Your task to perform on an android device: check data usage Image 0: 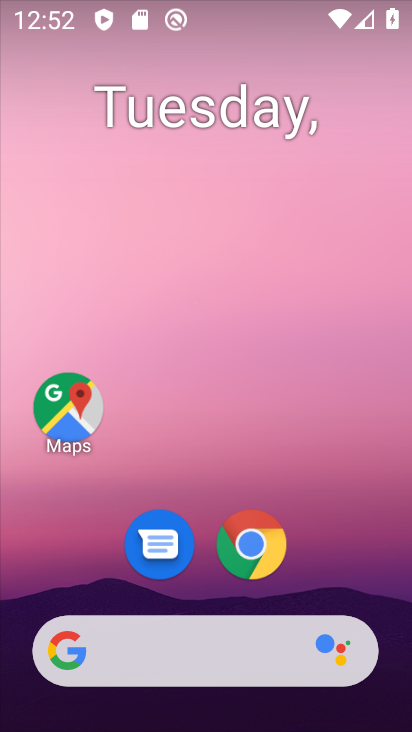
Step 0: drag from (383, 595) to (315, 169)
Your task to perform on an android device: check data usage Image 1: 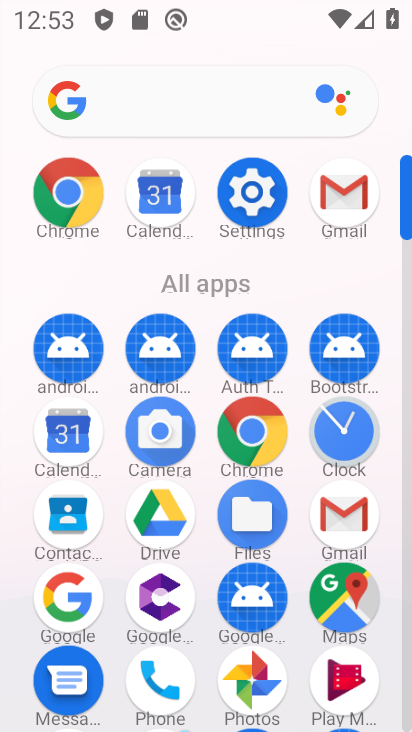
Step 1: click (408, 691)
Your task to perform on an android device: check data usage Image 2: 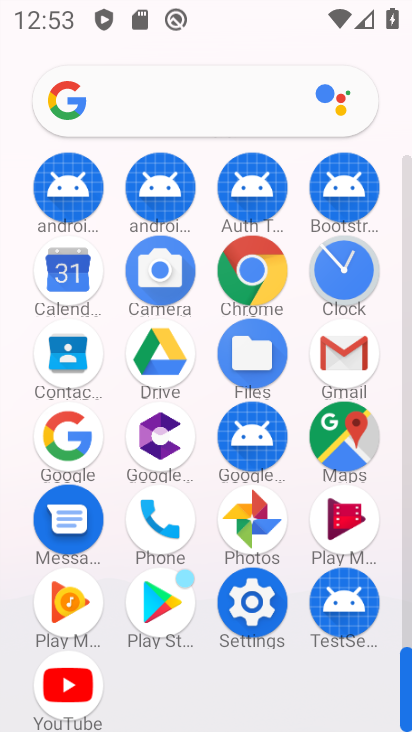
Step 2: click (256, 604)
Your task to perform on an android device: check data usage Image 3: 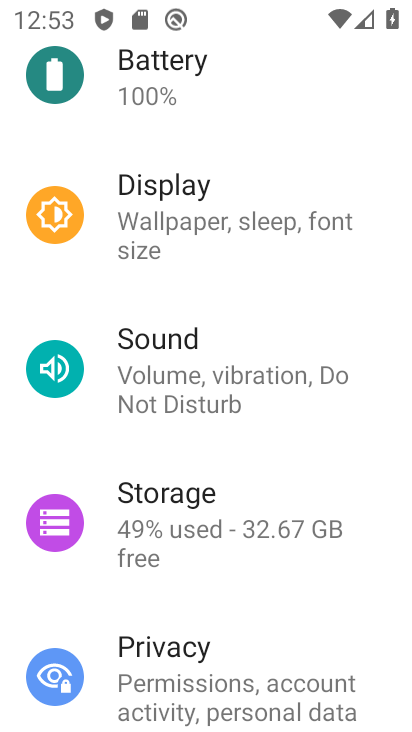
Step 3: drag from (358, 191) to (379, 534)
Your task to perform on an android device: check data usage Image 4: 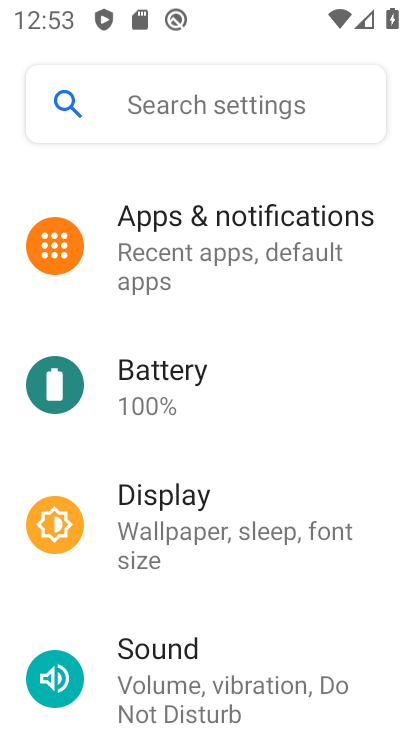
Step 4: drag from (345, 242) to (348, 596)
Your task to perform on an android device: check data usage Image 5: 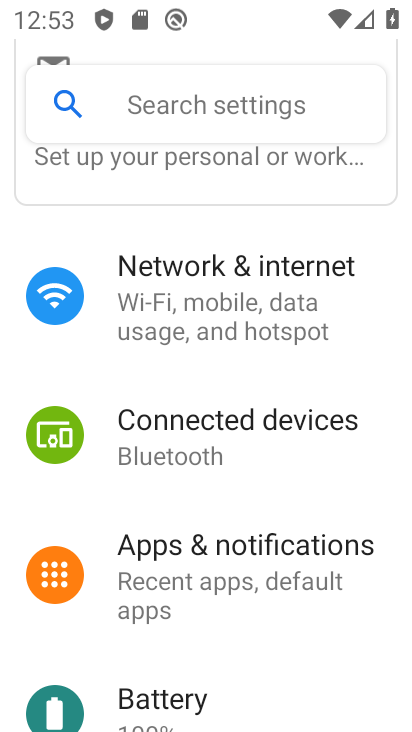
Step 5: click (166, 285)
Your task to perform on an android device: check data usage Image 6: 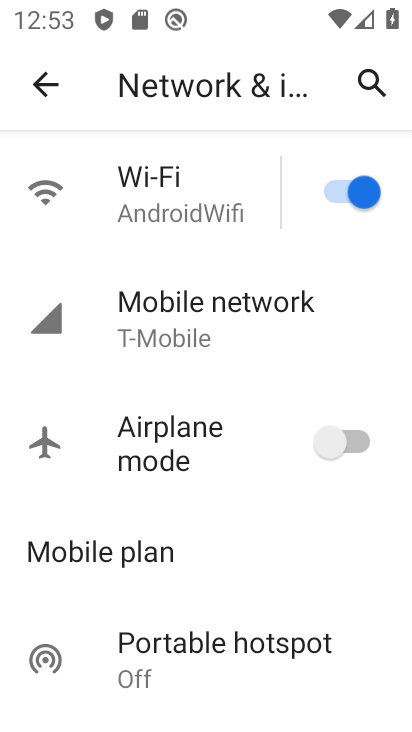
Step 6: click (161, 309)
Your task to perform on an android device: check data usage Image 7: 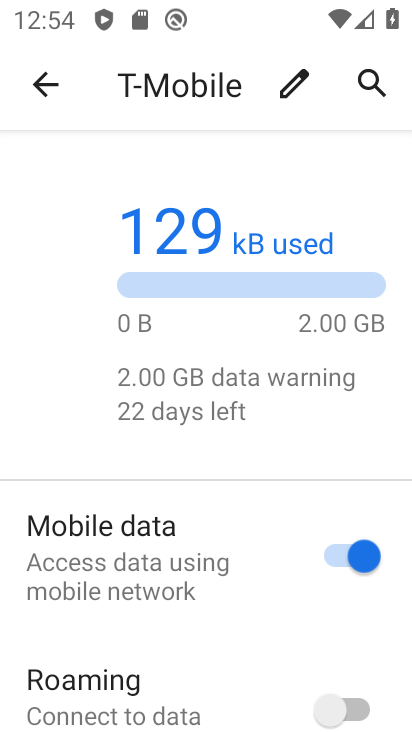
Step 7: press home button
Your task to perform on an android device: check data usage Image 8: 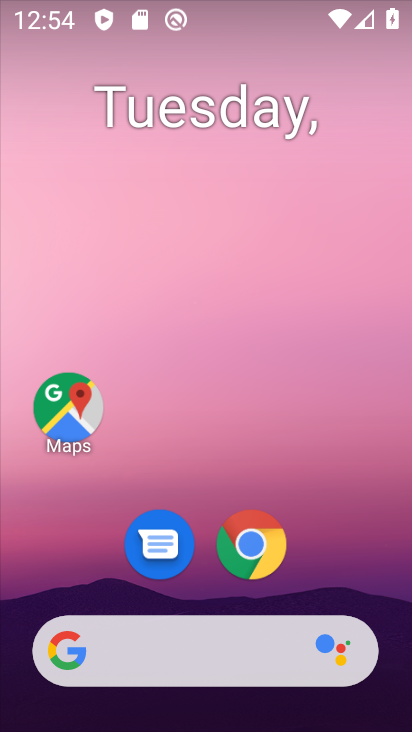
Step 8: drag from (397, 613) to (315, 80)
Your task to perform on an android device: check data usage Image 9: 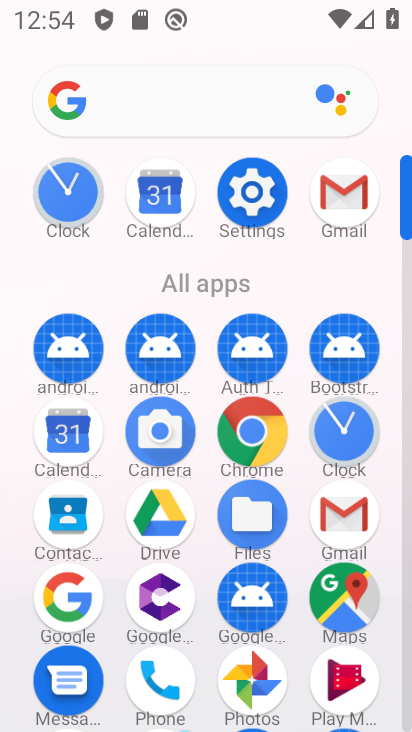
Step 9: click (408, 709)
Your task to perform on an android device: check data usage Image 10: 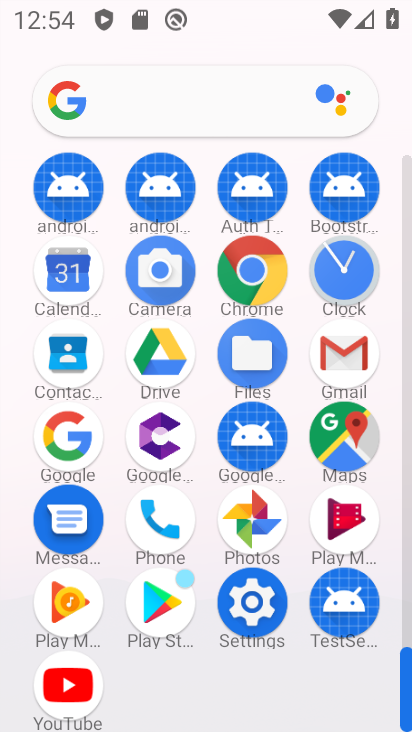
Step 10: click (255, 600)
Your task to perform on an android device: check data usage Image 11: 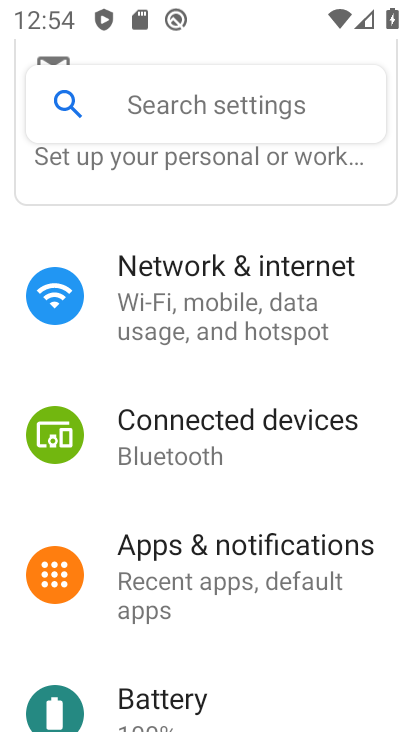
Step 11: click (167, 296)
Your task to perform on an android device: check data usage Image 12: 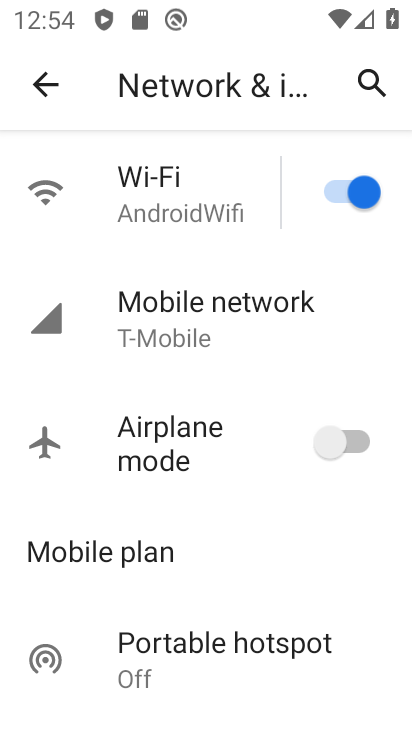
Step 12: click (167, 296)
Your task to perform on an android device: check data usage Image 13: 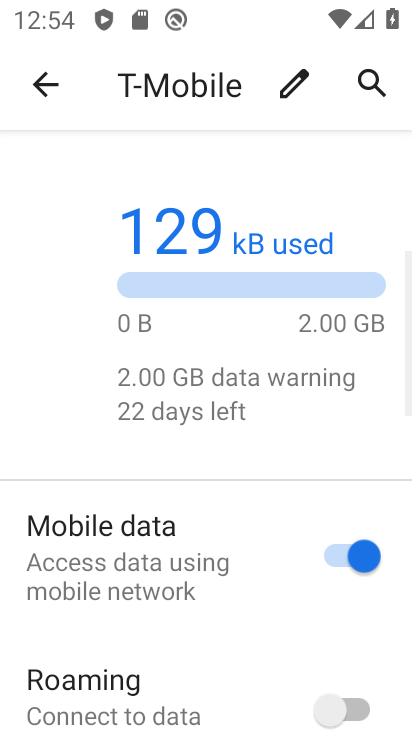
Step 13: task complete